Your task to perform on an android device: change the clock display to digital Image 0: 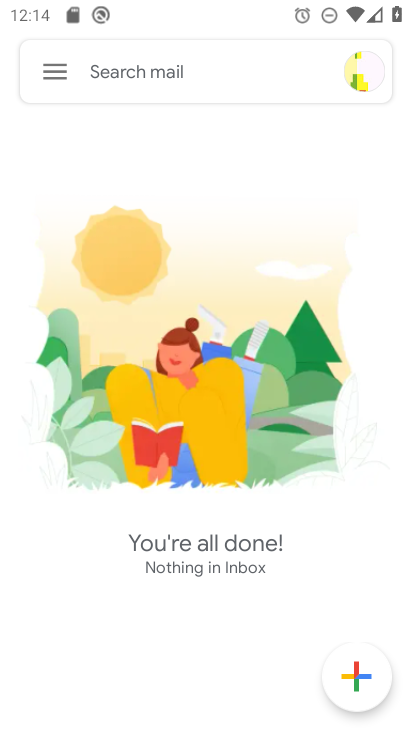
Step 0: press home button
Your task to perform on an android device: change the clock display to digital Image 1: 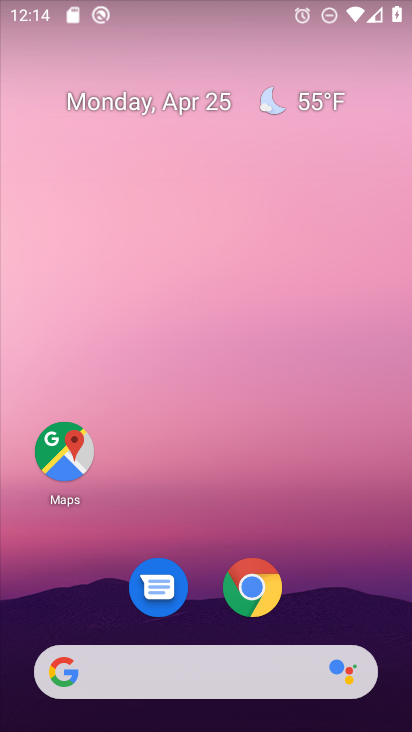
Step 1: drag from (322, 567) to (234, 93)
Your task to perform on an android device: change the clock display to digital Image 2: 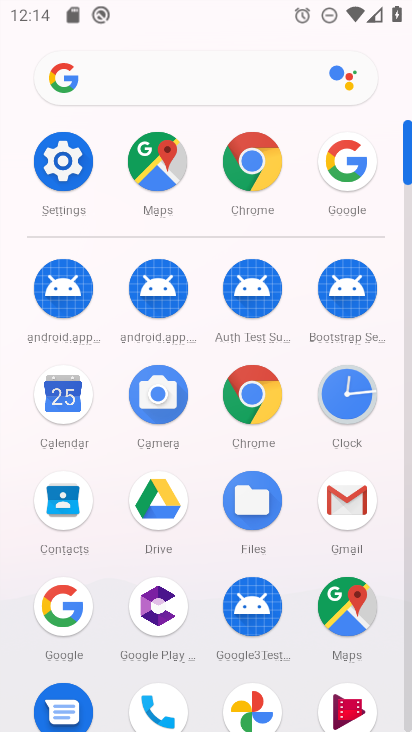
Step 2: click (361, 400)
Your task to perform on an android device: change the clock display to digital Image 3: 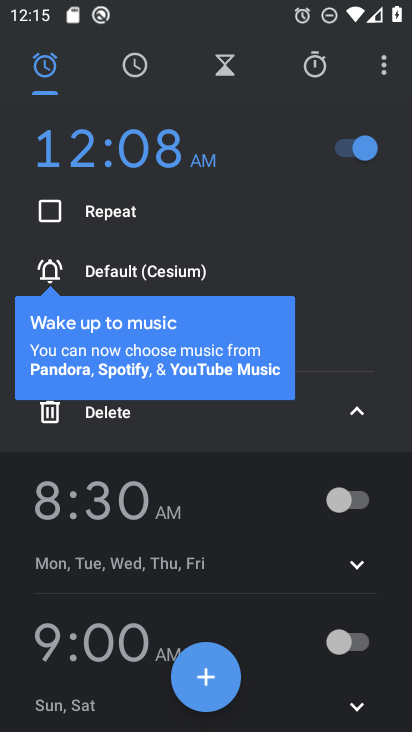
Step 3: click (382, 60)
Your task to perform on an android device: change the clock display to digital Image 4: 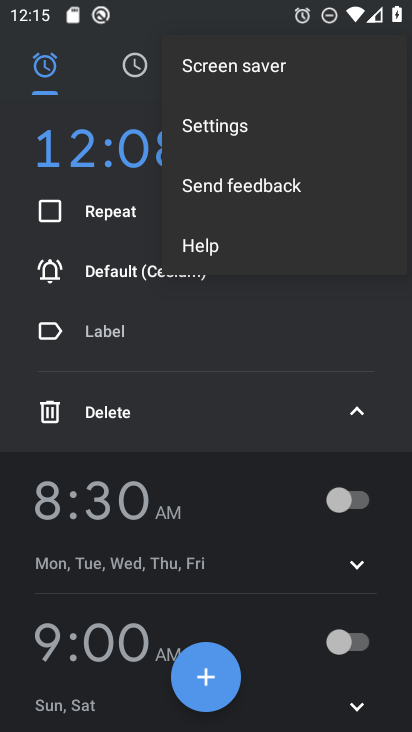
Step 4: click (210, 139)
Your task to perform on an android device: change the clock display to digital Image 5: 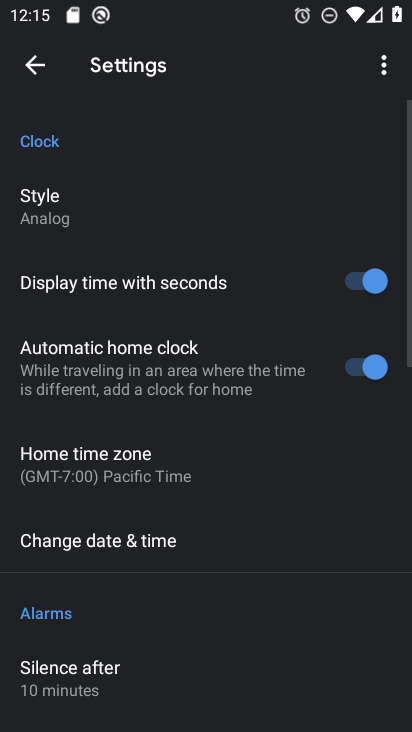
Step 5: click (62, 198)
Your task to perform on an android device: change the clock display to digital Image 6: 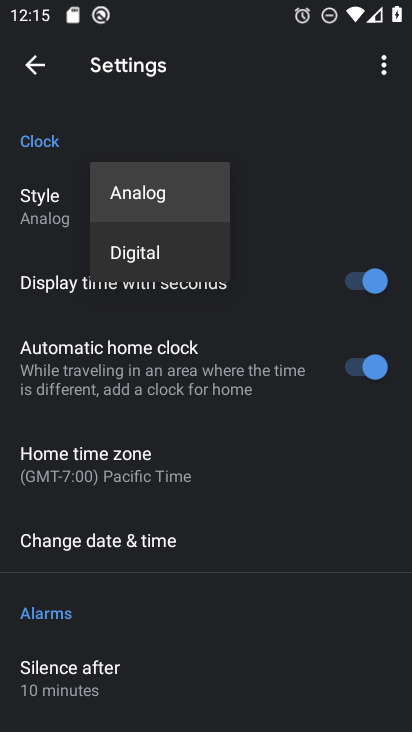
Step 6: click (130, 256)
Your task to perform on an android device: change the clock display to digital Image 7: 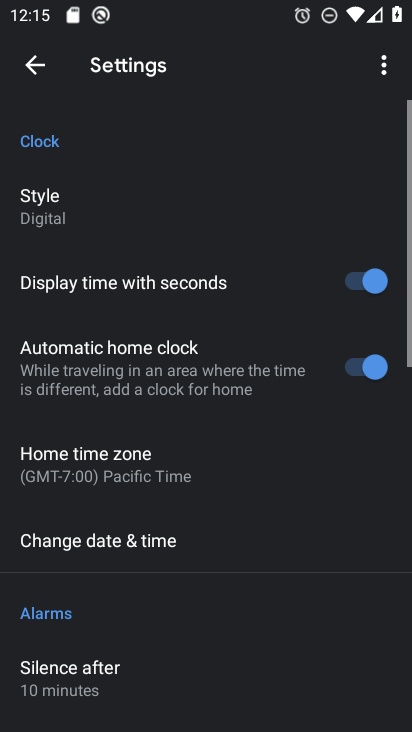
Step 7: task complete